Your task to perform on an android device: change alarm snooze length Image 0: 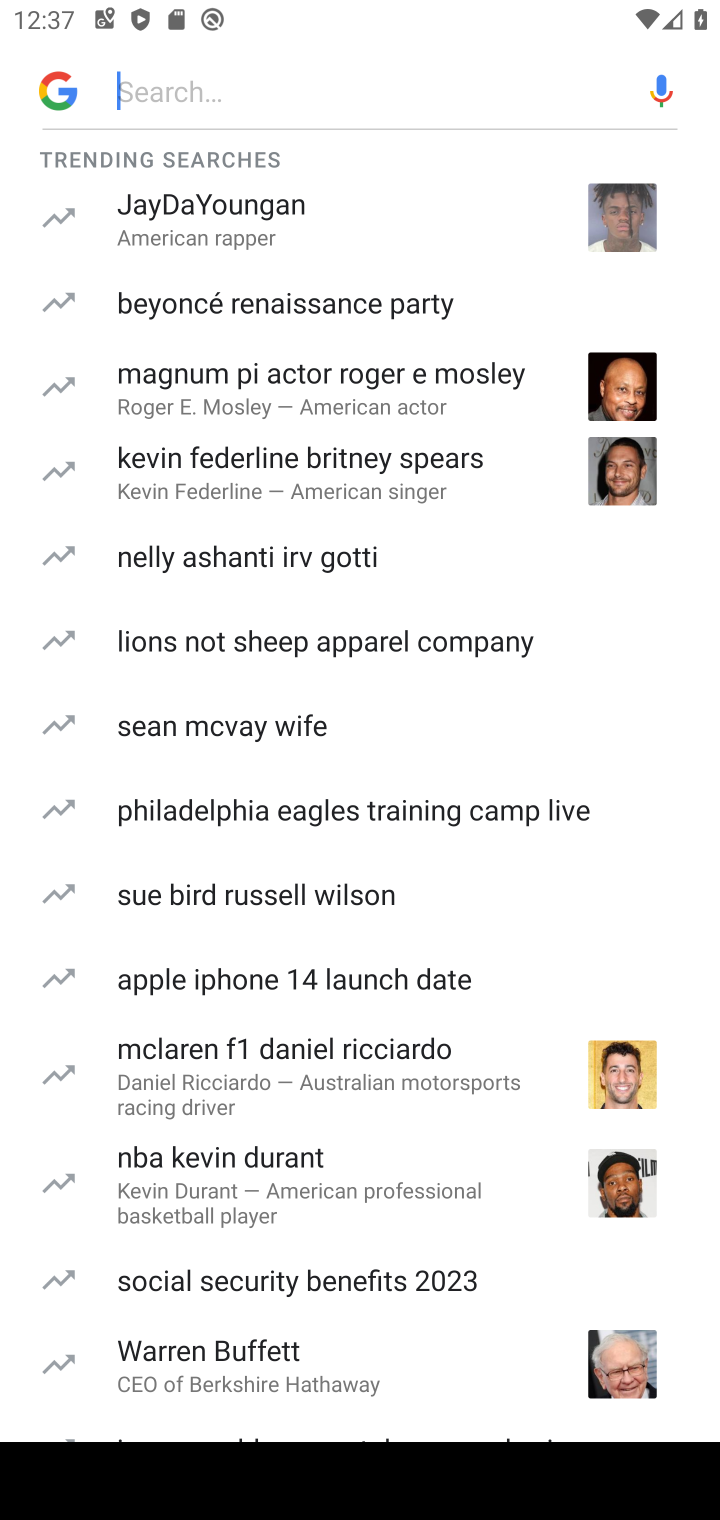
Step 0: press back button
Your task to perform on an android device: change alarm snooze length Image 1: 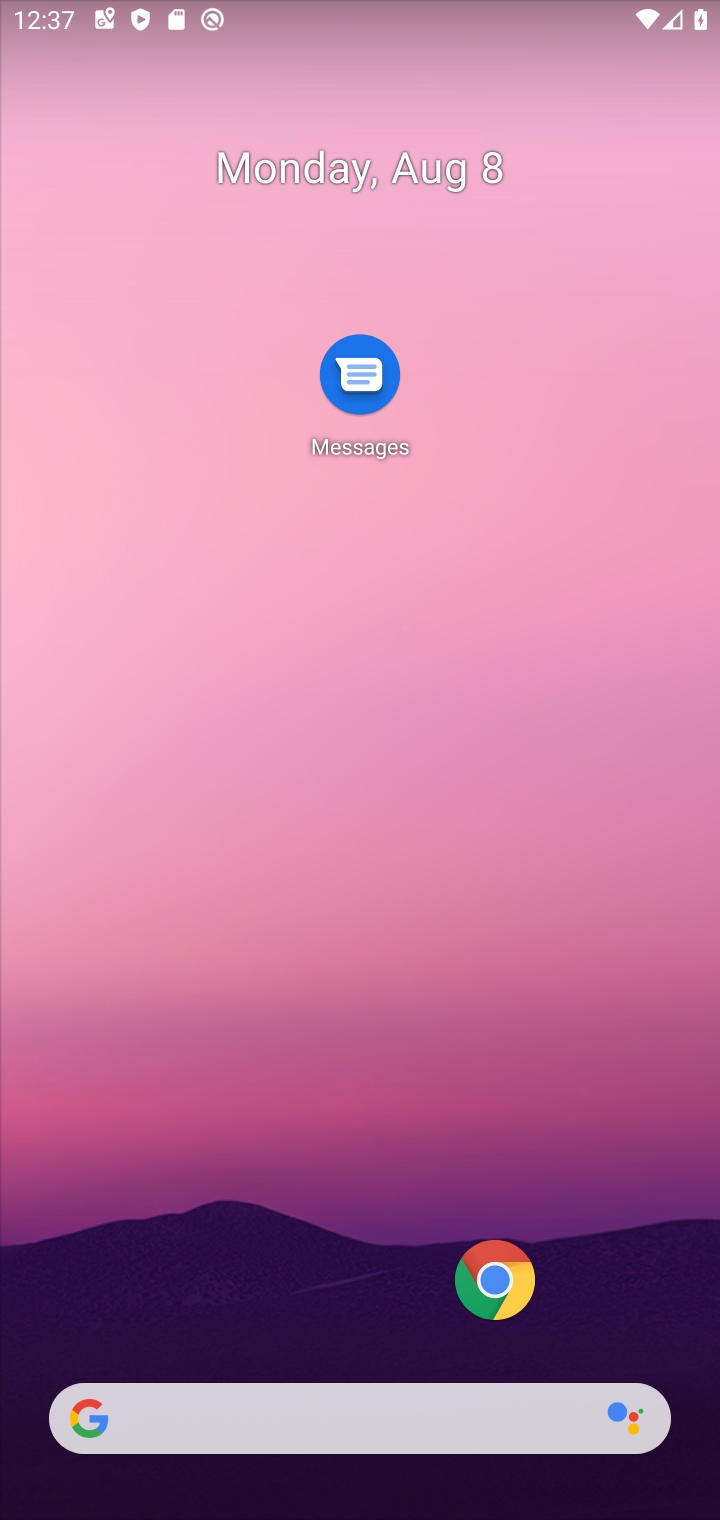
Step 1: drag from (306, 673) to (424, 28)
Your task to perform on an android device: change alarm snooze length Image 2: 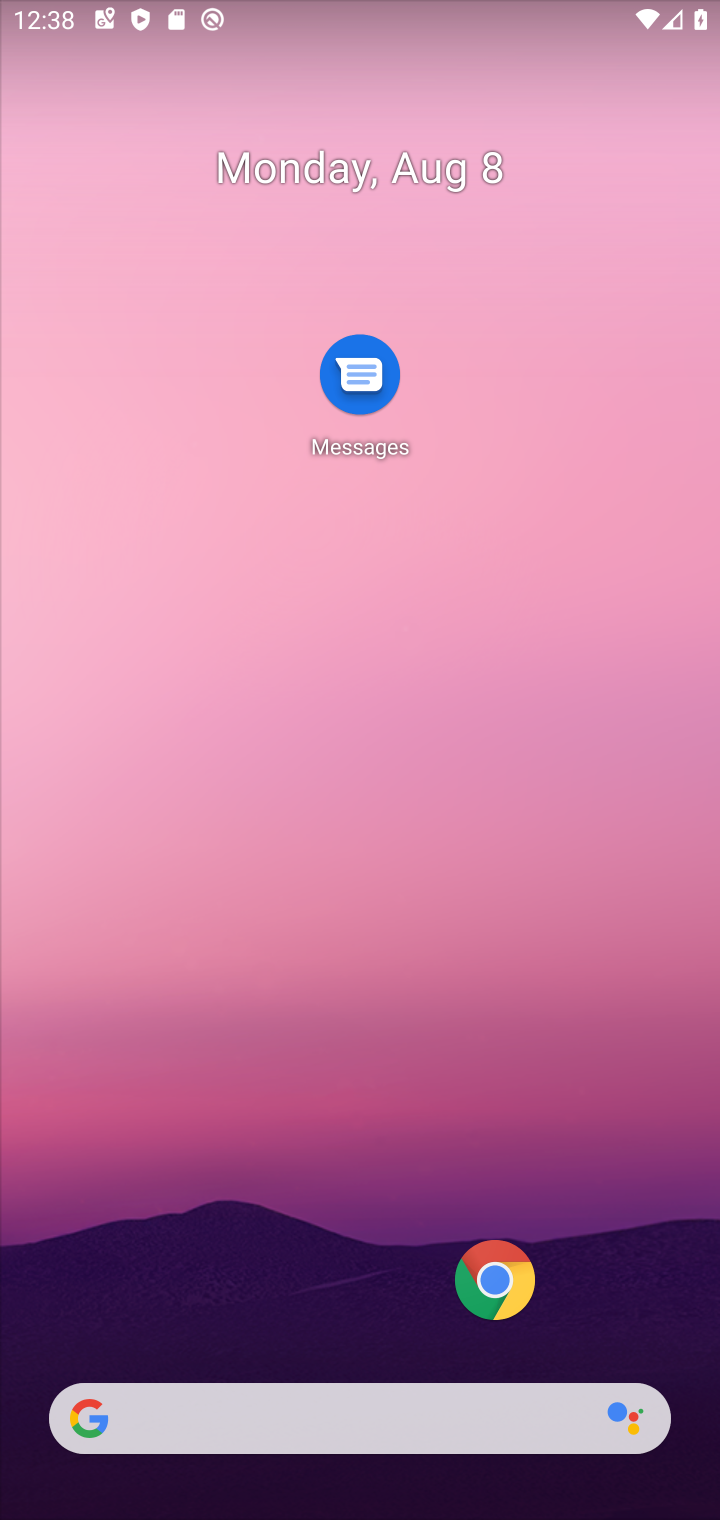
Step 2: drag from (230, 1142) to (476, 41)
Your task to perform on an android device: change alarm snooze length Image 3: 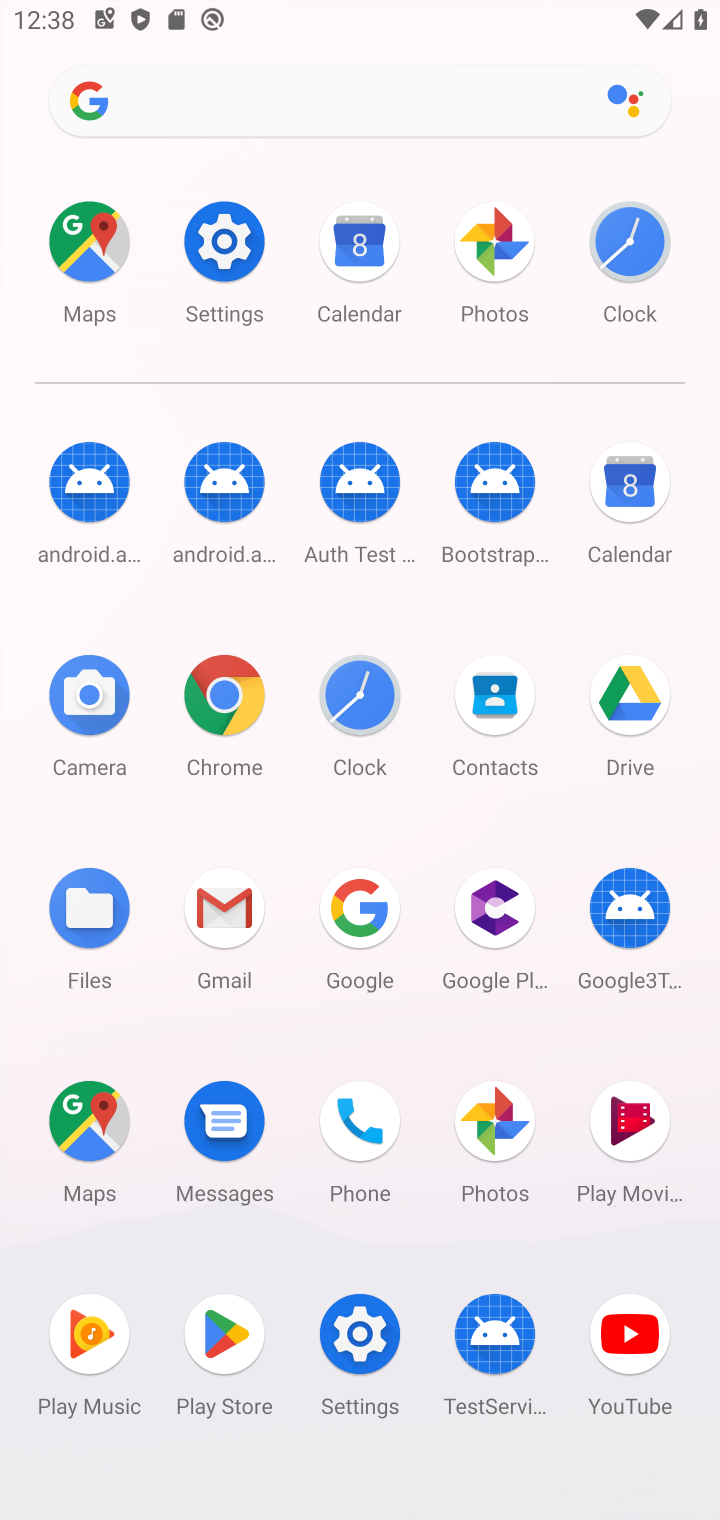
Step 3: click (639, 244)
Your task to perform on an android device: change alarm snooze length Image 4: 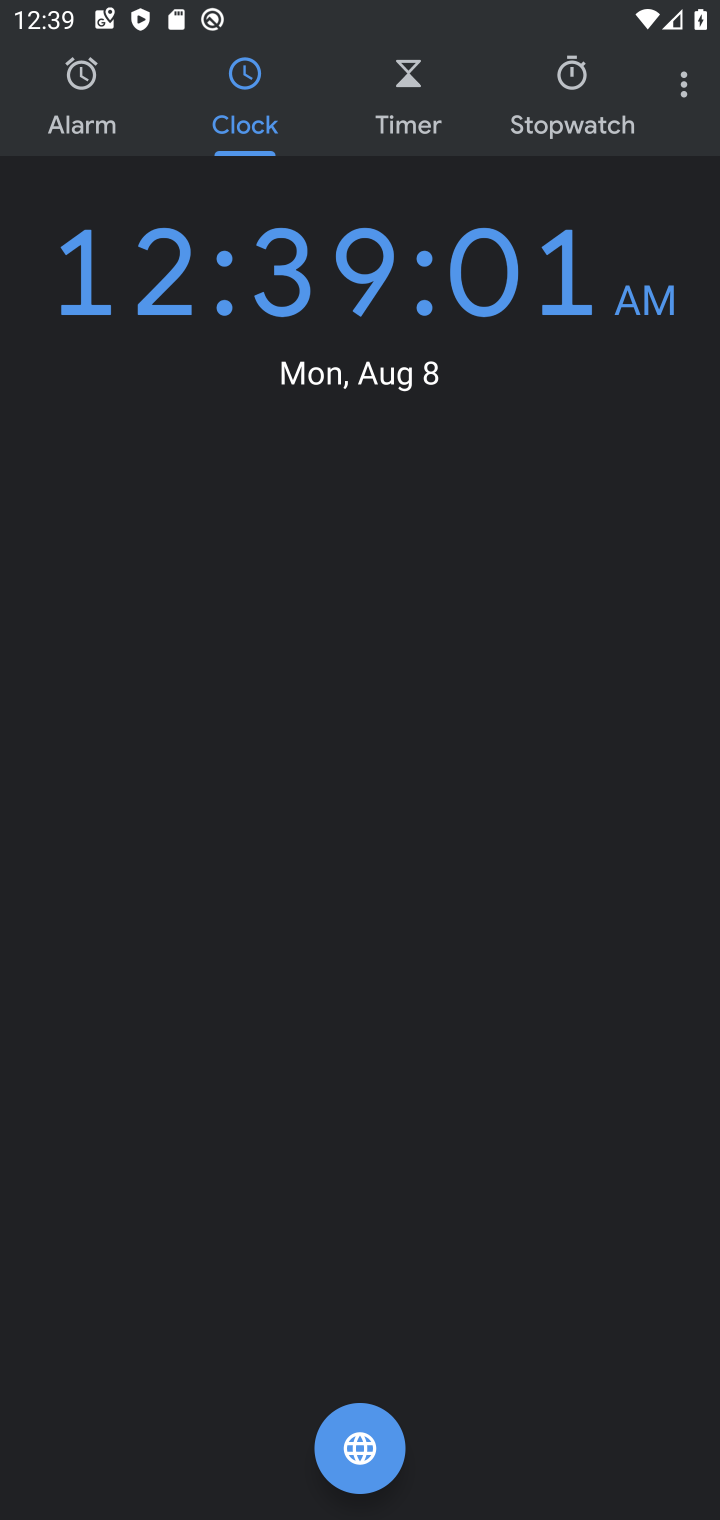
Step 4: click (682, 100)
Your task to perform on an android device: change alarm snooze length Image 5: 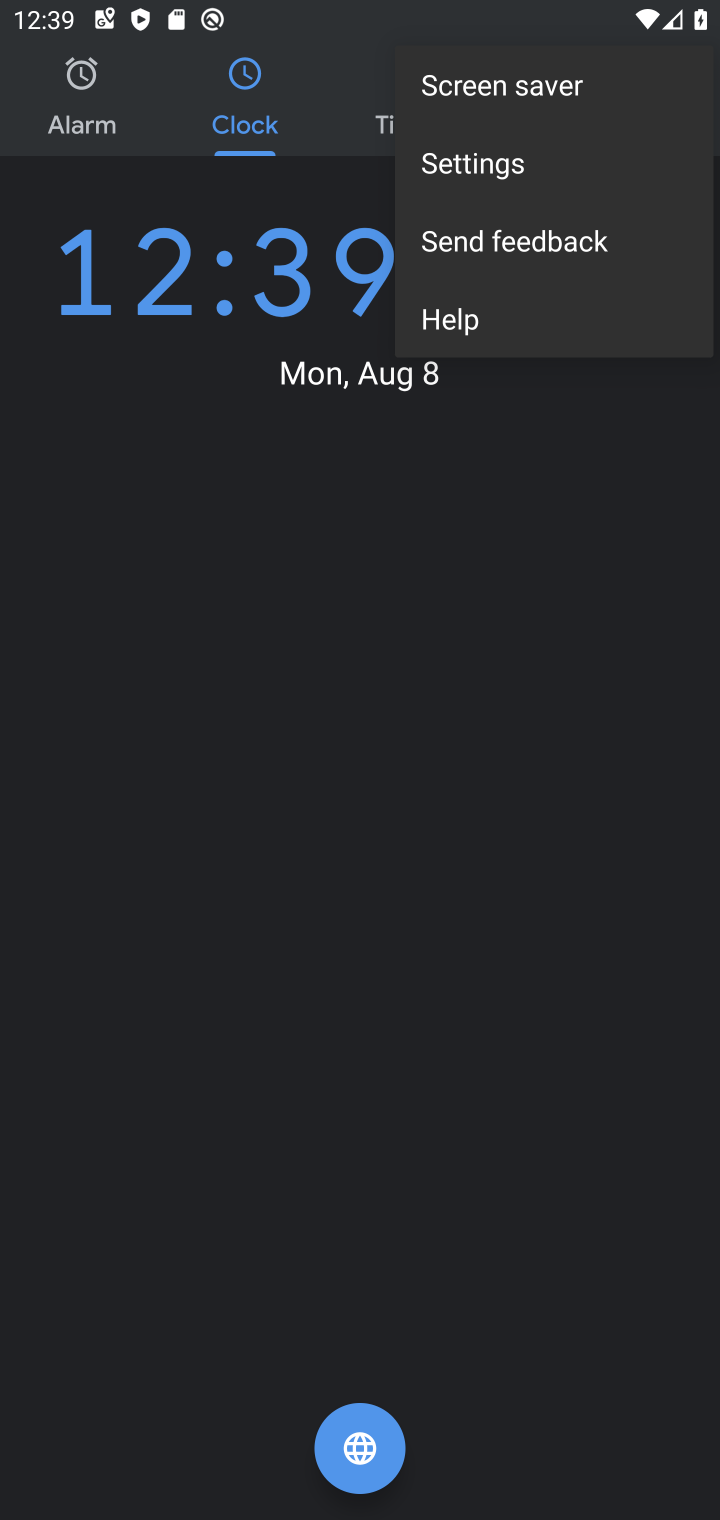
Step 5: click (529, 158)
Your task to perform on an android device: change alarm snooze length Image 6: 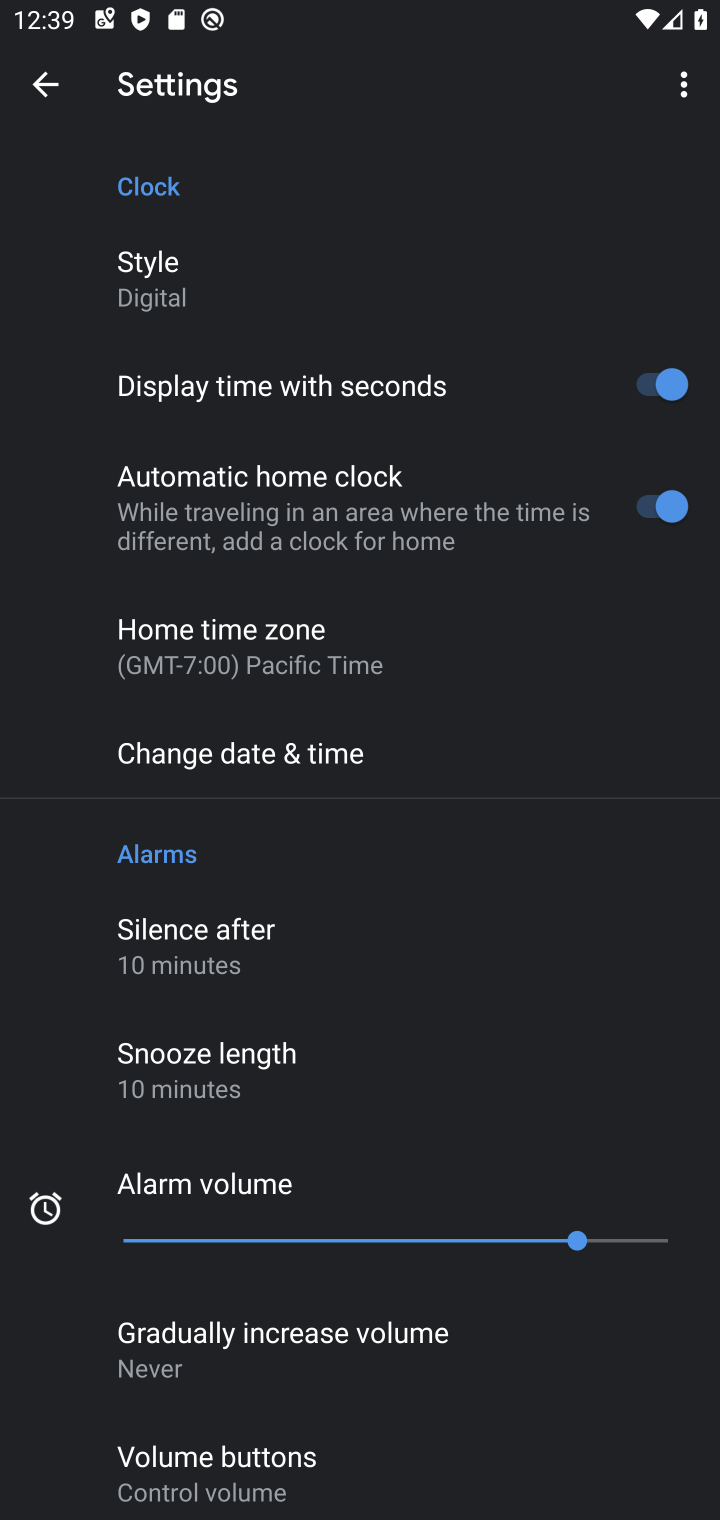
Step 6: click (253, 1069)
Your task to perform on an android device: change alarm snooze length Image 7: 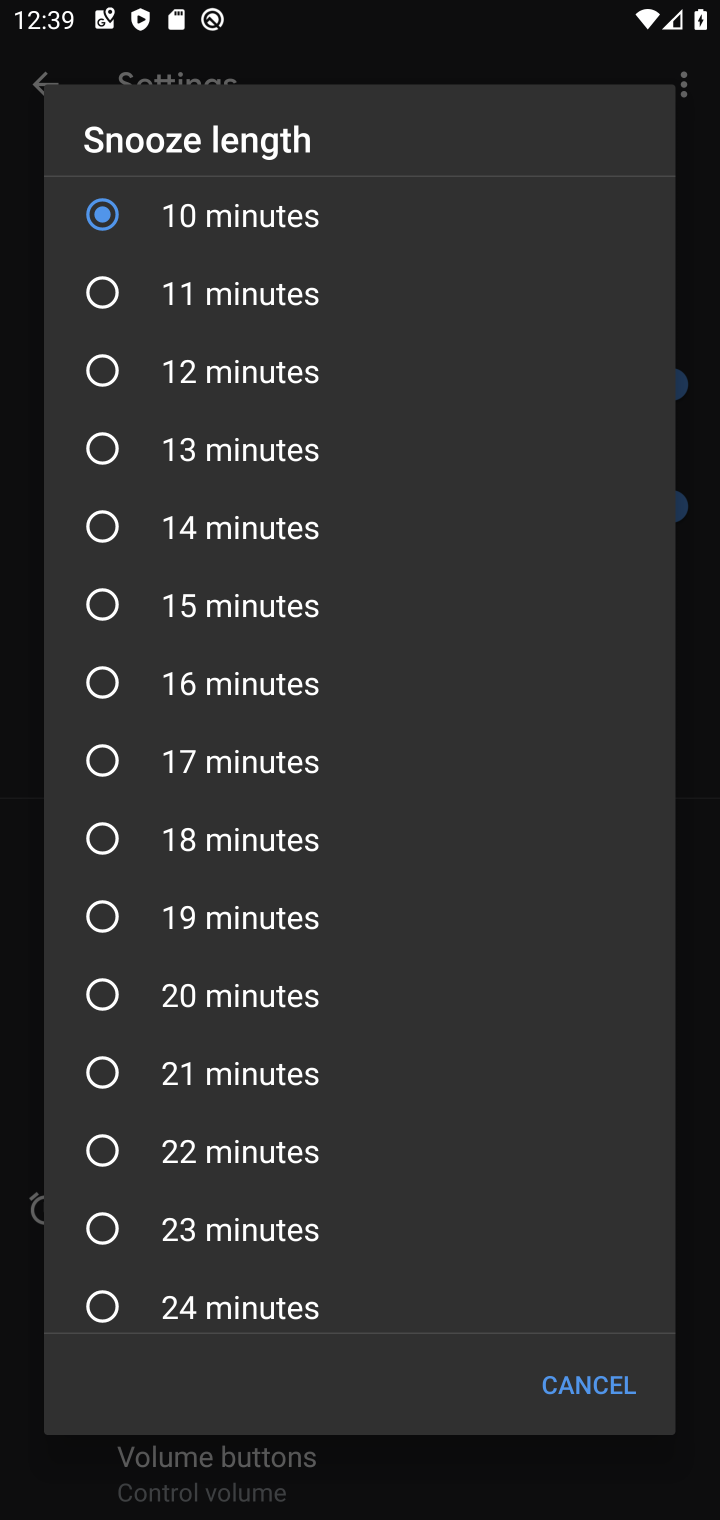
Step 7: click (197, 932)
Your task to perform on an android device: change alarm snooze length Image 8: 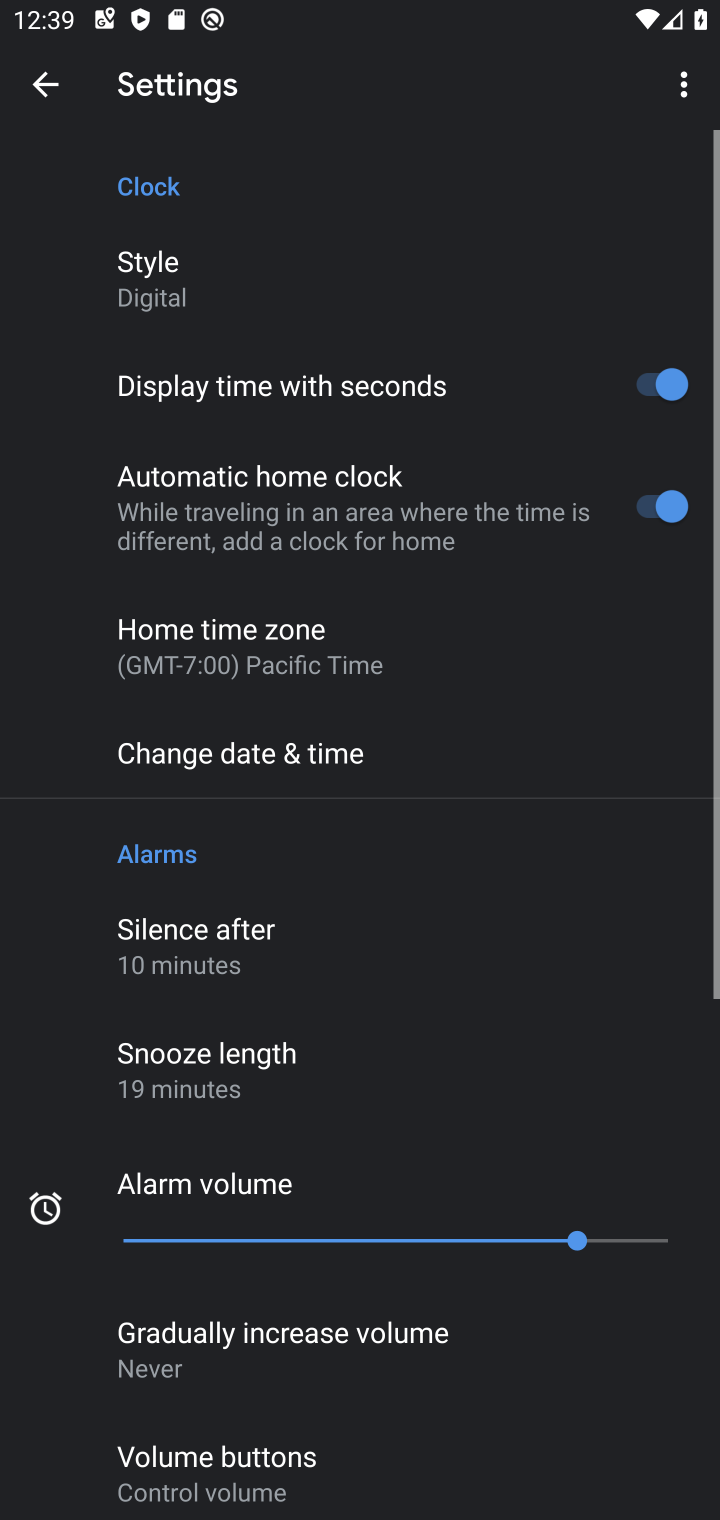
Step 8: task complete